Your task to perform on an android device: change the clock display to digital Image 0: 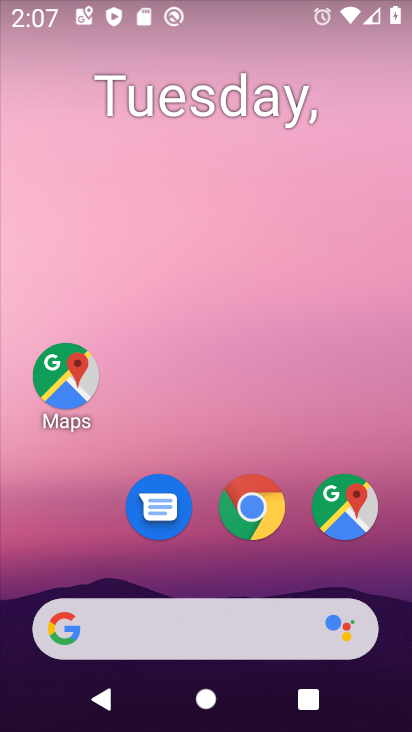
Step 0: drag from (303, 551) to (309, 198)
Your task to perform on an android device: change the clock display to digital Image 1: 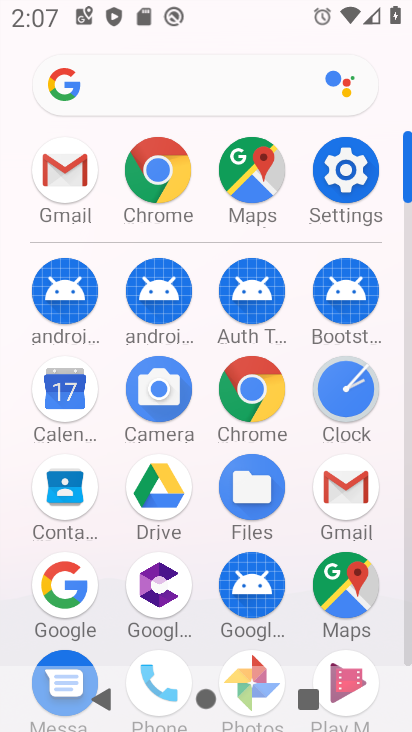
Step 1: click (353, 393)
Your task to perform on an android device: change the clock display to digital Image 2: 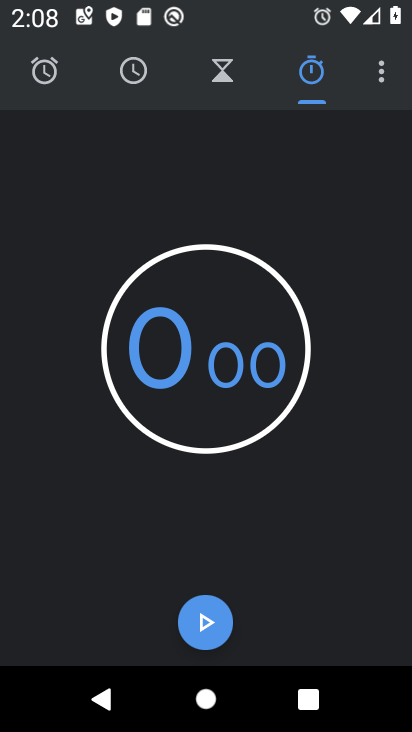
Step 2: click (380, 77)
Your task to perform on an android device: change the clock display to digital Image 3: 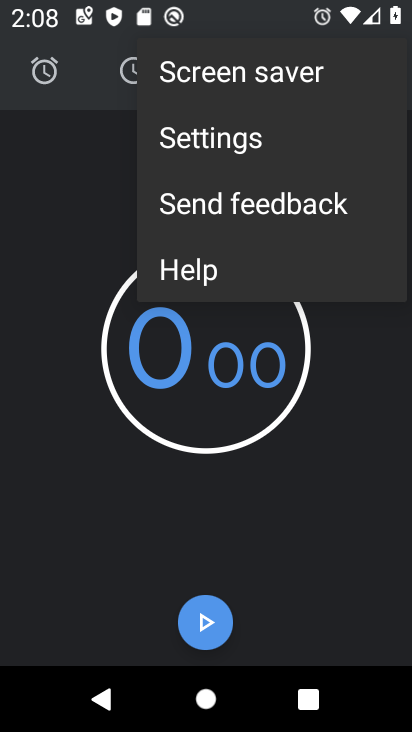
Step 3: click (277, 134)
Your task to perform on an android device: change the clock display to digital Image 4: 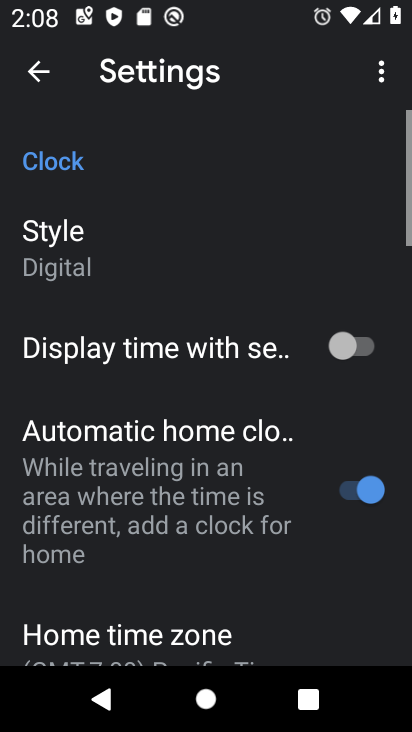
Step 4: click (88, 249)
Your task to perform on an android device: change the clock display to digital Image 5: 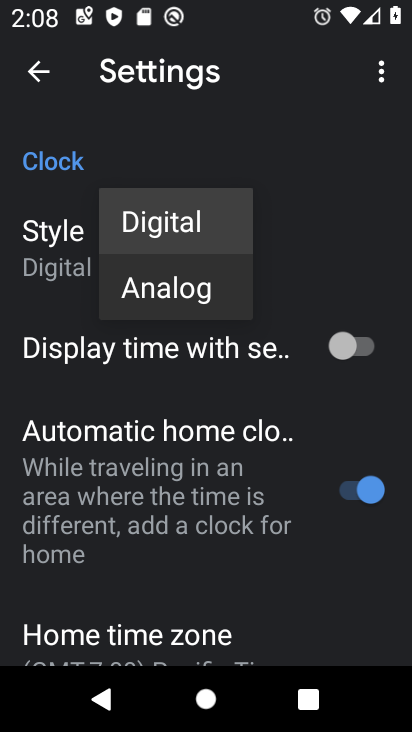
Step 5: click (146, 282)
Your task to perform on an android device: change the clock display to digital Image 6: 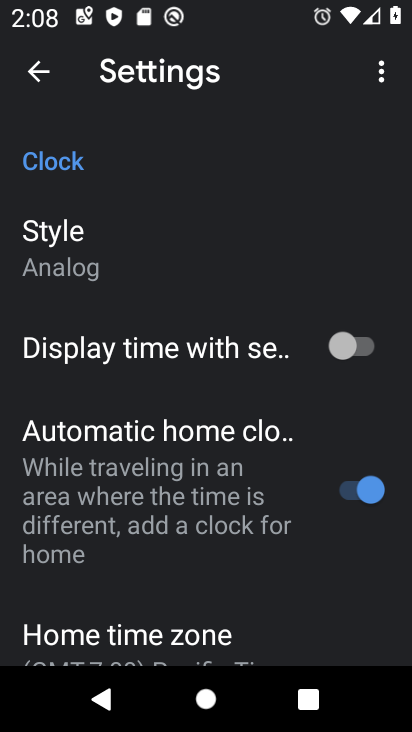
Step 6: task complete